Your task to perform on an android device: Go to wifi settings Image 0: 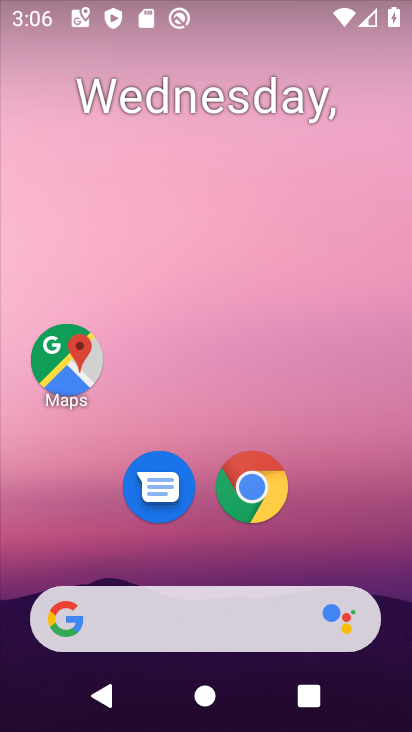
Step 0: drag from (306, 539) to (273, 35)
Your task to perform on an android device: Go to wifi settings Image 1: 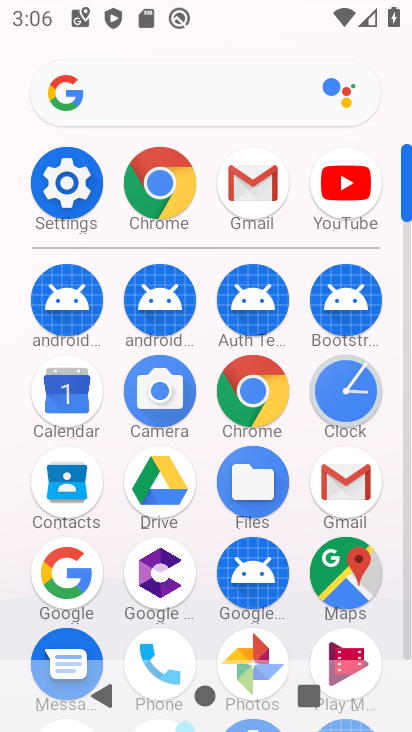
Step 1: click (54, 181)
Your task to perform on an android device: Go to wifi settings Image 2: 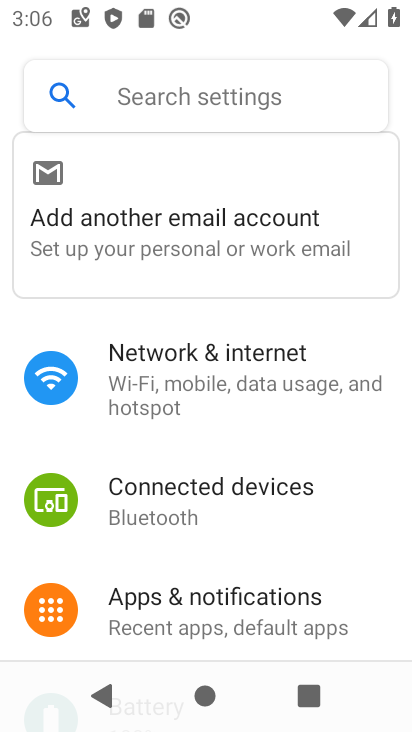
Step 2: click (272, 380)
Your task to perform on an android device: Go to wifi settings Image 3: 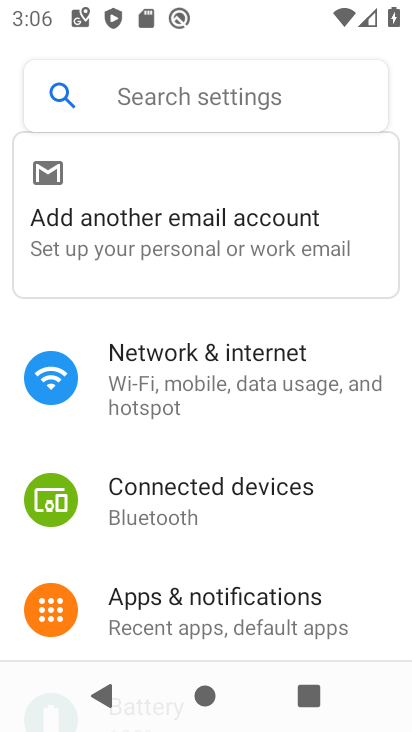
Step 3: click (270, 363)
Your task to perform on an android device: Go to wifi settings Image 4: 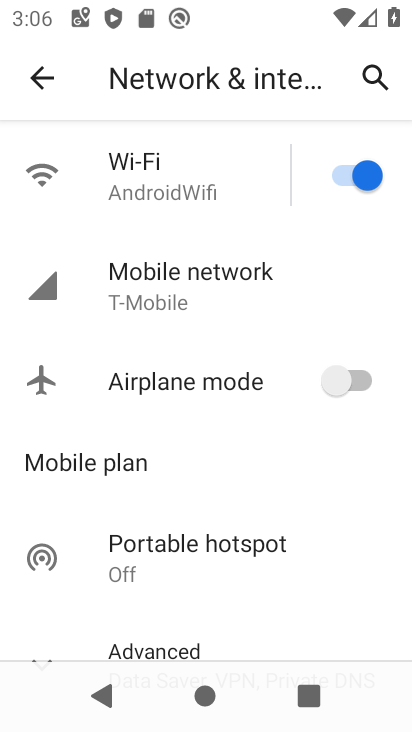
Step 4: click (163, 183)
Your task to perform on an android device: Go to wifi settings Image 5: 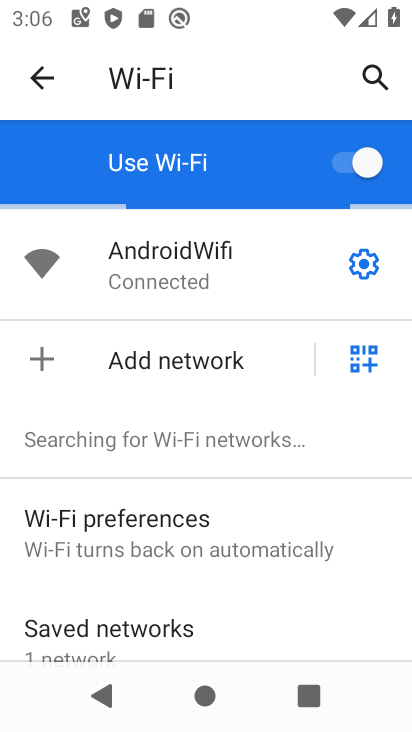
Step 5: task complete